Your task to perform on an android device: make emails show in primary in the gmail app Image 0: 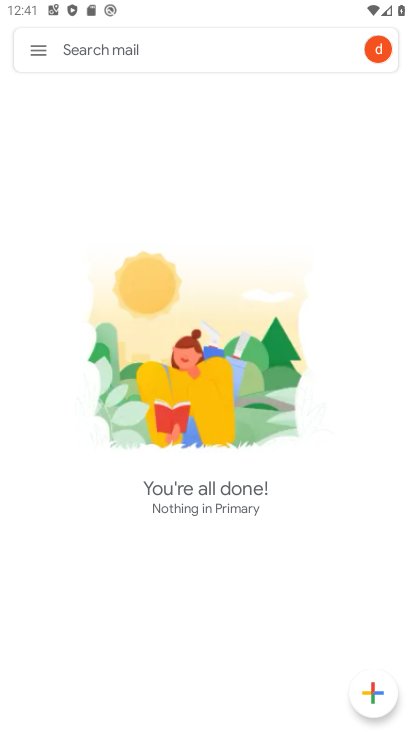
Step 0: press home button
Your task to perform on an android device: make emails show in primary in the gmail app Image 1: 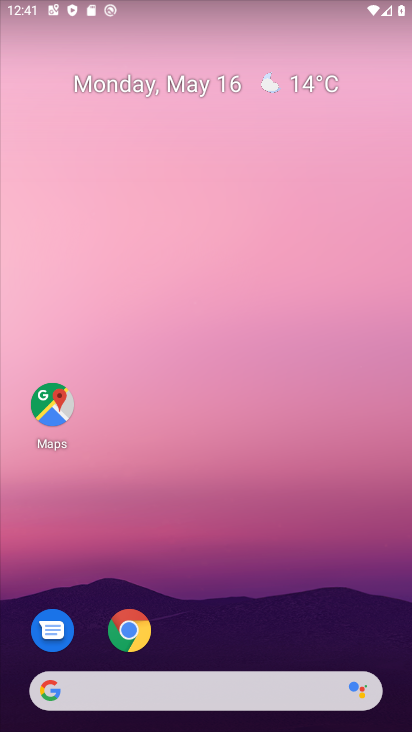
Step 1: drag from (267, 616) to (209, 55)
Your task to perform on an android device: make emails show in primary in the gmail app Image 2: 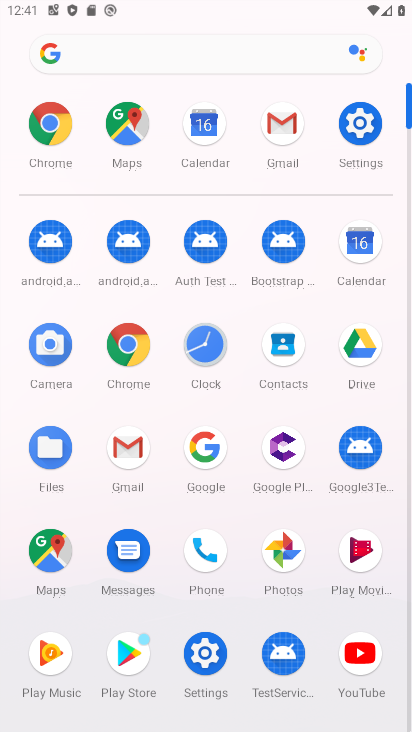
Step 2: click (126, 459)
Your task to perform on an android device: make emails show in primary in the gmail app Image 3: 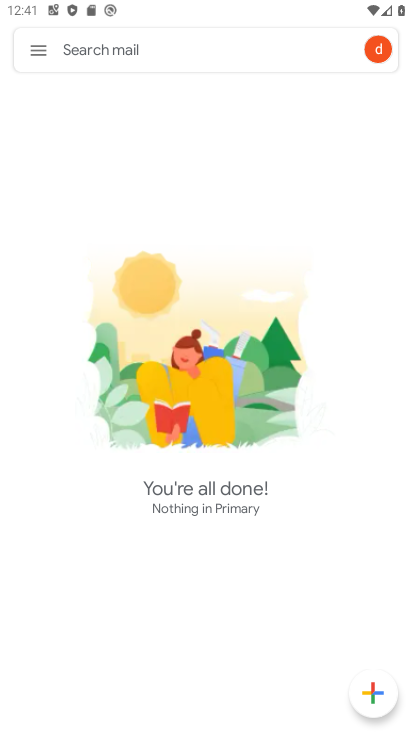
Step 3: click (46, 57)
Your task to perform on an android device: make emails show in primary in the gmail app Image 4: 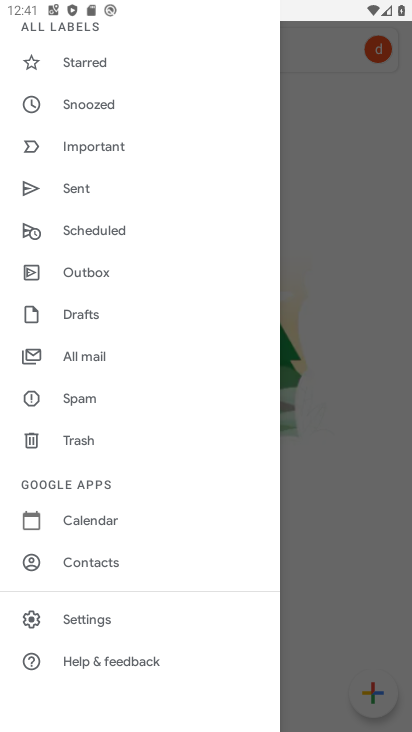
Step 4: click (112, 611)
Your task to perform on an android device: make emails show in primary in the gmail app Image 5: 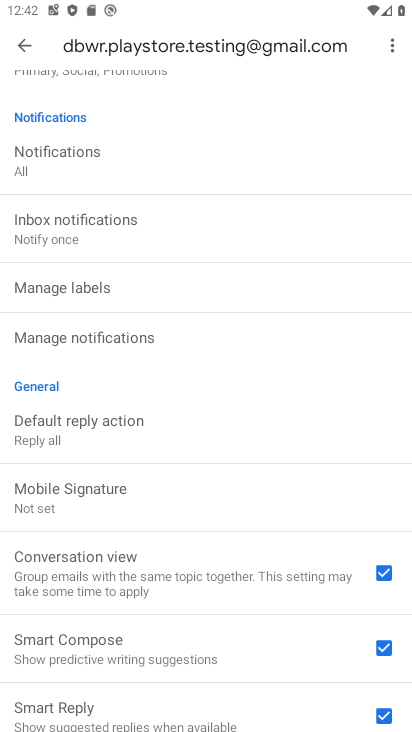
Step 5: drag from (106, 249) to (93, 615)
Your task to perform on an android device: make emails show in primary in the gmail app Image 6: 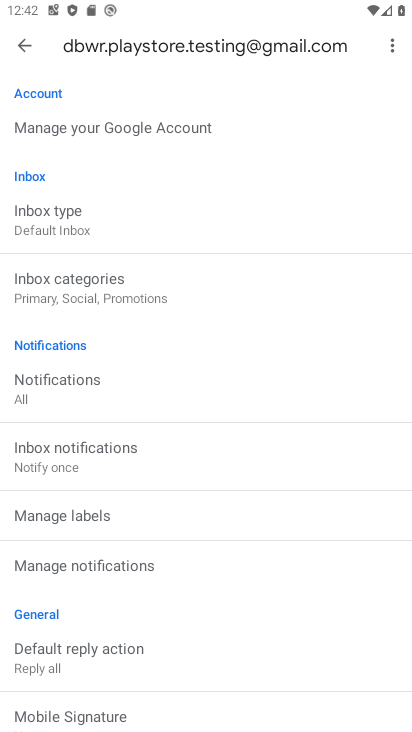
Step 6: click (91, 297)
Your task to perform on an android device: make emails show in primary in the gmail app Image 7: 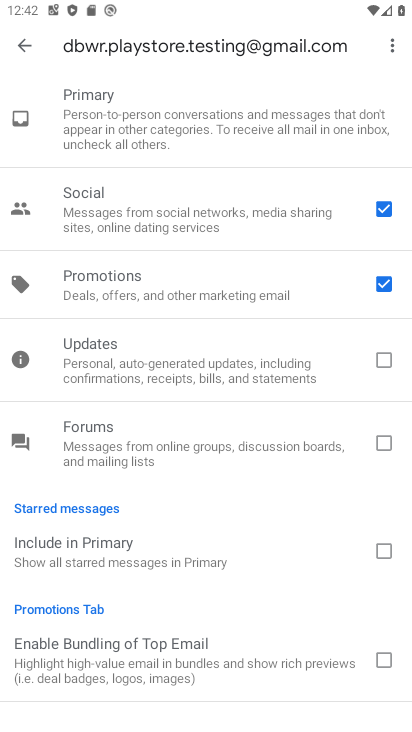
Step 7: click (382, 205)
Your task to perform on an android device: make emails show in primary in the gmail app Image 8: 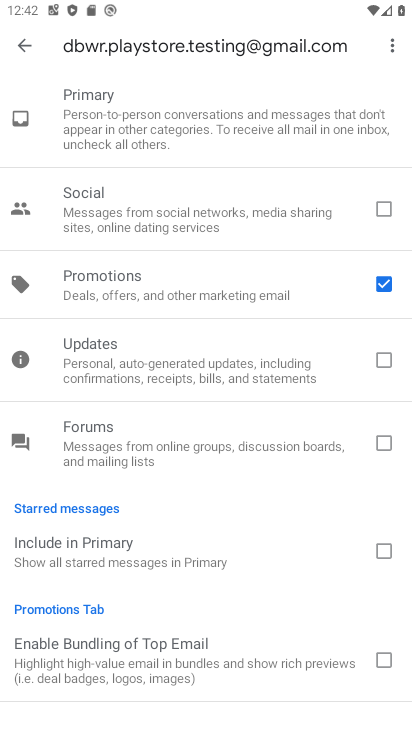
Step 8: click (384, 289)
Your task to perform on an android device: make emails show in primary in the gmail app Image 9: 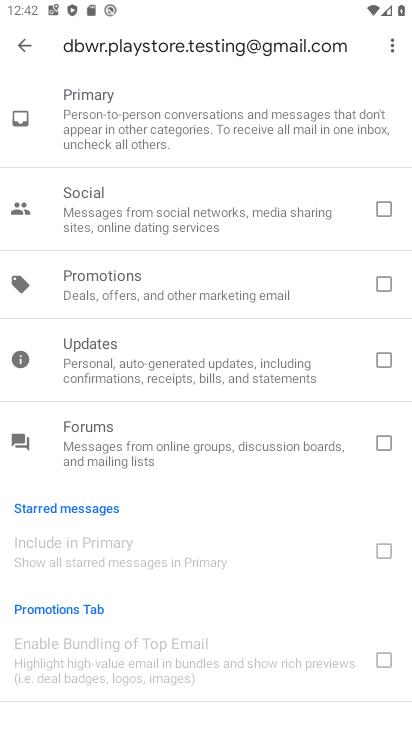
Step 9: task complete